Your task to perform on an android device: Go to wifi settings Image 0: 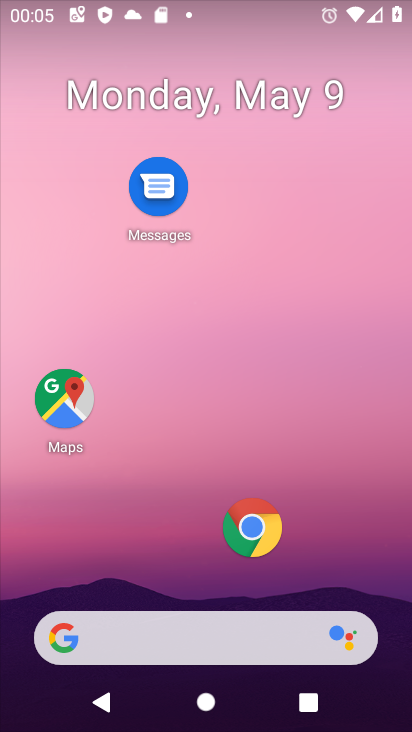
Step 0: drag from (170, 524) to (199, 19)
Your task to perform on an android device: Go to wifi settings Image 1: 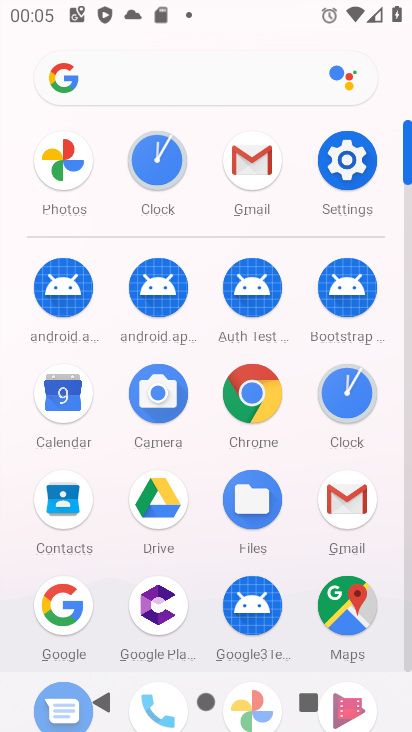
Step 1: click (341, 165)
Your task to perform on an android device: Go to wifi settings Image 2: 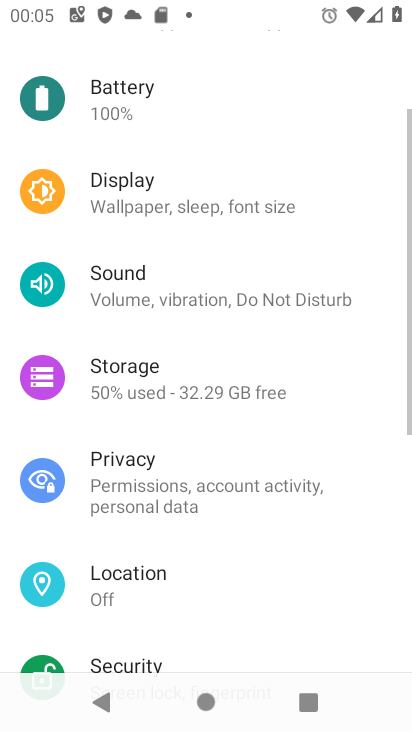
Step 2: drag from (223, 262) to (260, 595)
Your task to perform on an android device: Go to wifi settings Image 3: 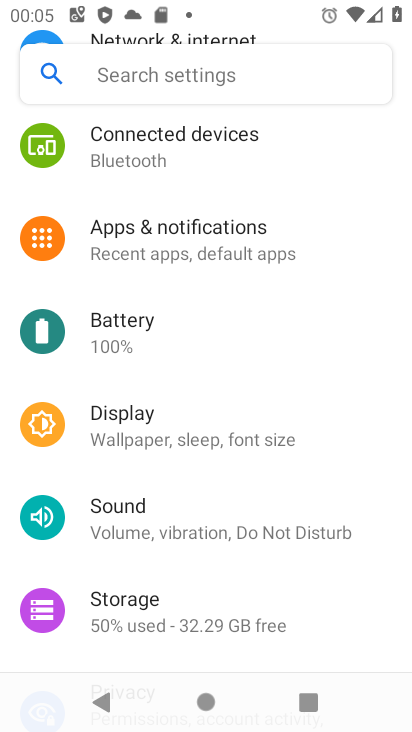
Step 3: drag from (158, 162) to (229, 492)
Your task to perform on an android device: Go to wifi settings Image 4: 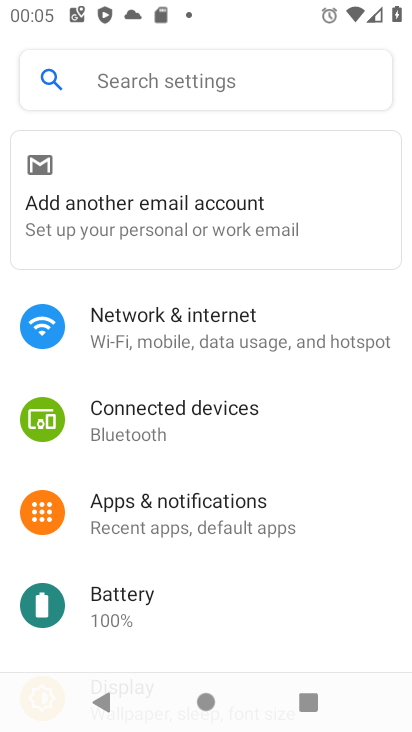
Step 4: click (171, 314)
Your task to perform on an android device: Go to wifi settings Image 5: 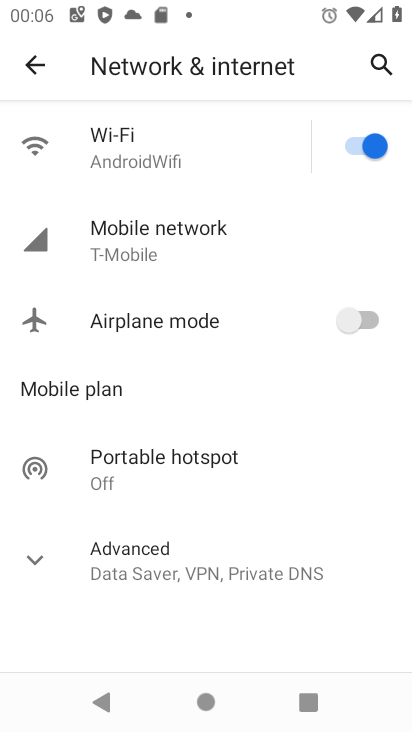
Step 5: task complete